Your task to perform on an android device: Check the news Image 0: 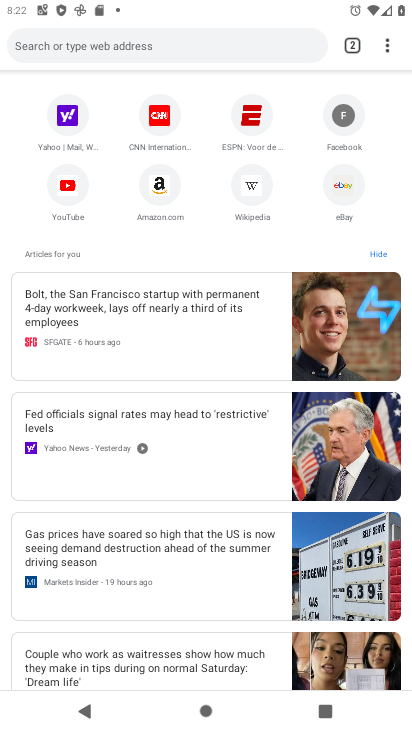
Step 0: click (153, 59)
Your task to perform on an android device: Check the news Image 1: 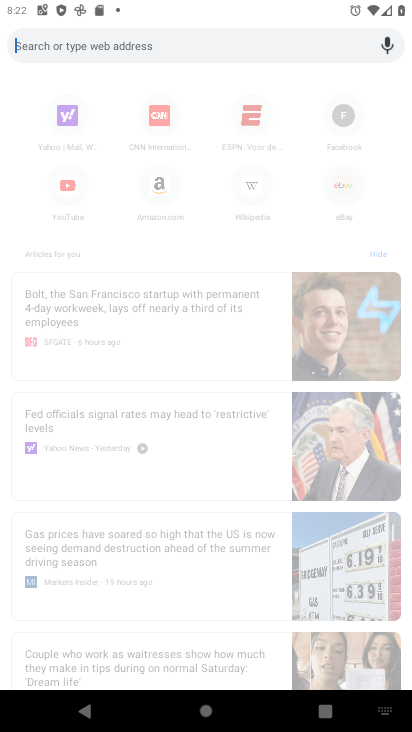
Step 1: press home button
Your task to perform on an android device: Check the news Image 2: 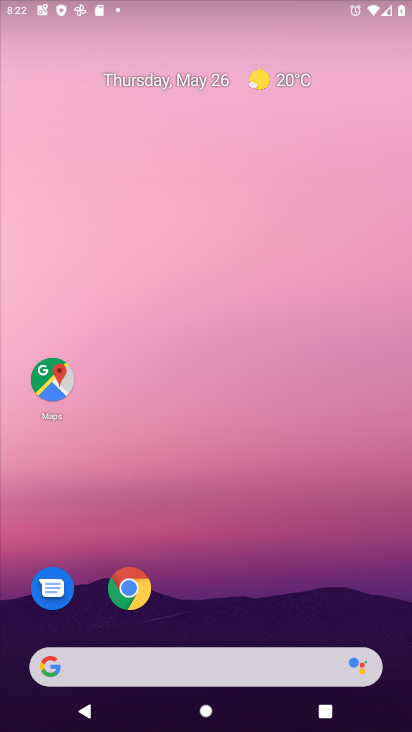
Step 2: drag from (324, 578) to (246, 24)
Your task to perform on an android device: Check the news Image 3: 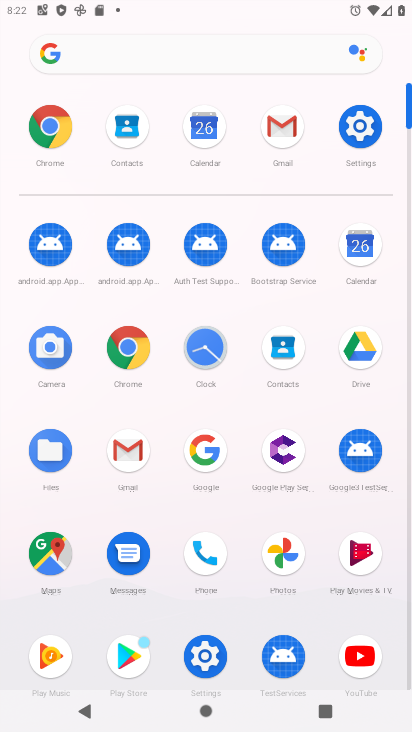
Step 3: click (207, 448)
Your task to perform on an android device: Check the news Image 4: 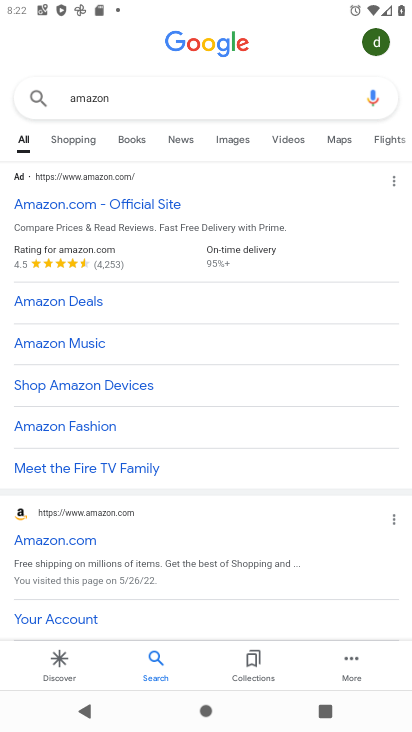
Step 4: press back button
Your task to perform on an android device: Check the news Image 5: 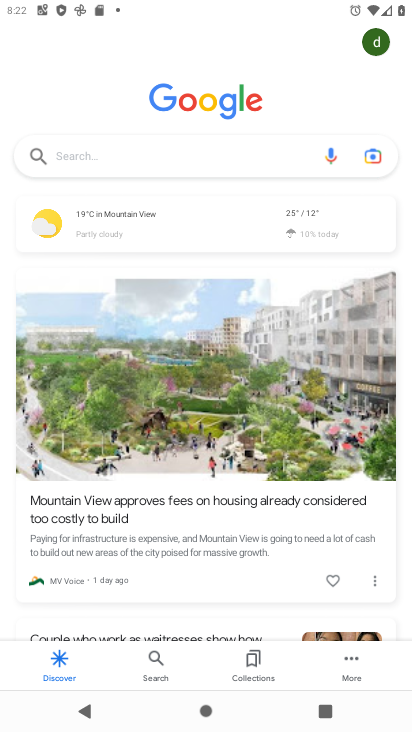
Step 5: click (142, 163)
Your task to perform on an android device: Check the news Image 6: 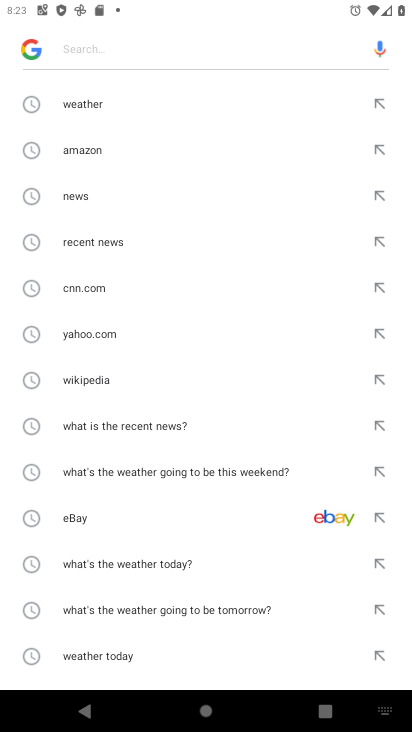
Step 6: click (94, 195)
Your task to perform on an android device: Check the news Image 7: 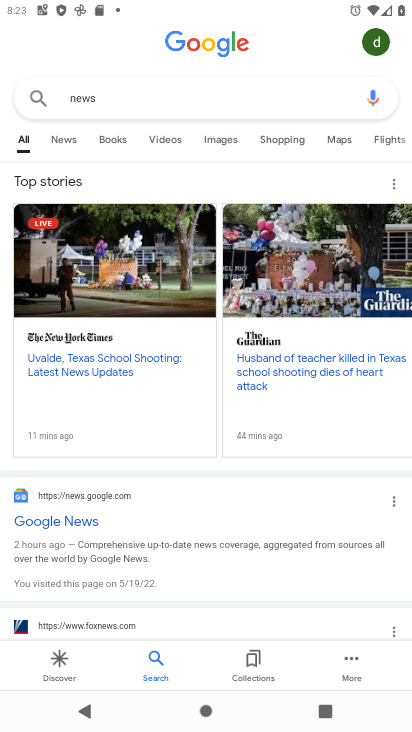
Step 7: task complete